Your task to perform on an android device: turn off location history Image 0: 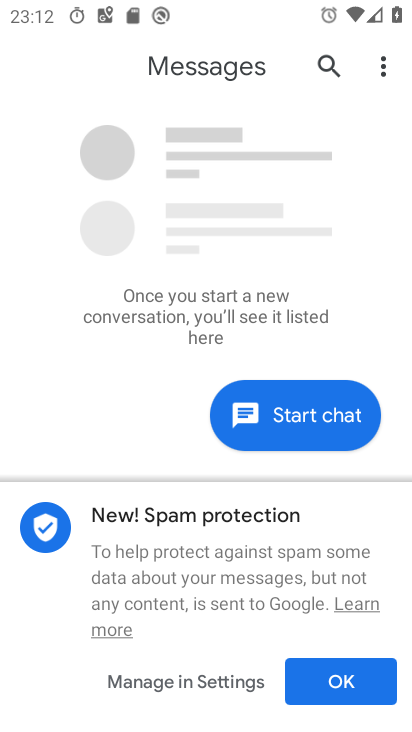
Step 0: press home button
Your task to perform on an android device: turn off location history Image 1: 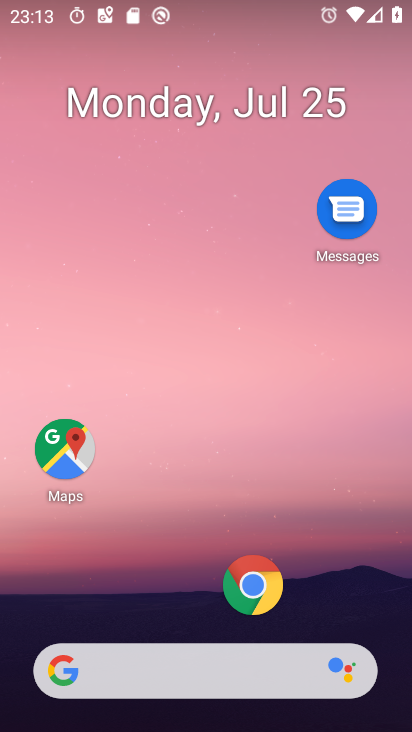
Step 1: click (66, 448)
Your task to perform on an android device: turn off location history Image 2: 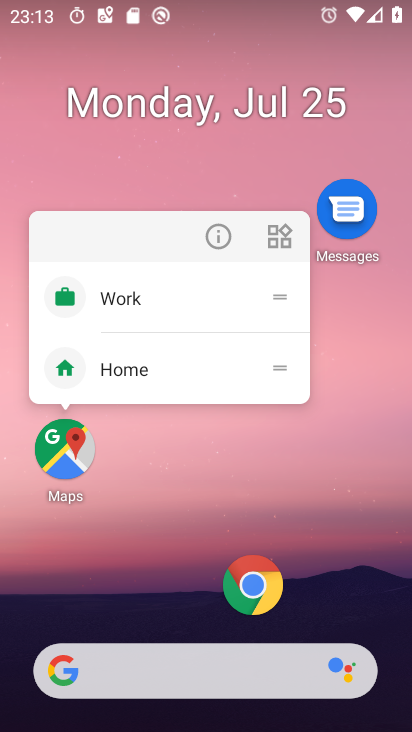
Step 2: click (62, 453)
Your task to perform on an android device: turn off location history Image 3: 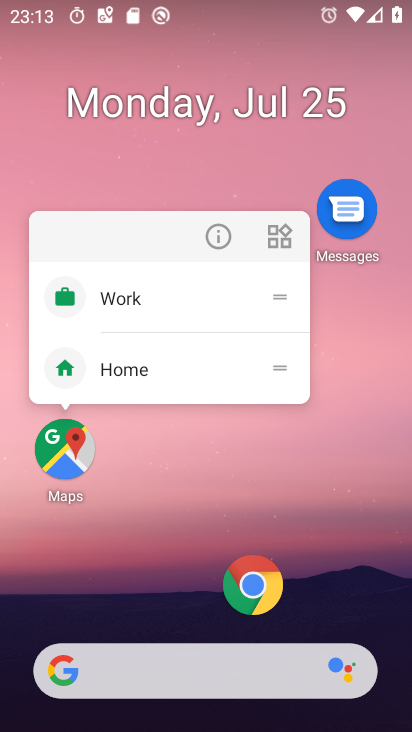
Step 3: click (72, 449)
Your task to perform on an android device: turn off location history Image 4: 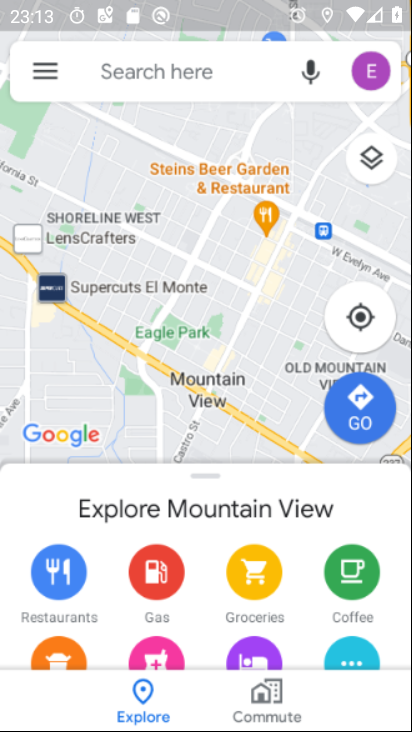
Step 4: click (72, 449)
Your task to perform on an android device: turn off location history Image 5: 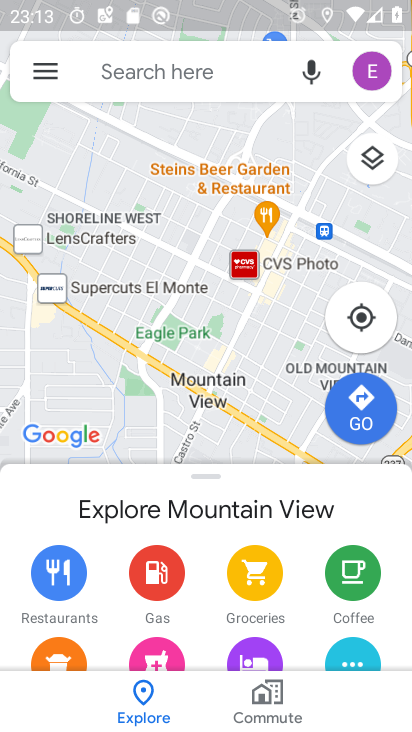
Step 5: click (47, 70)
Your task to perform on an android device: turn off location history Image 6: 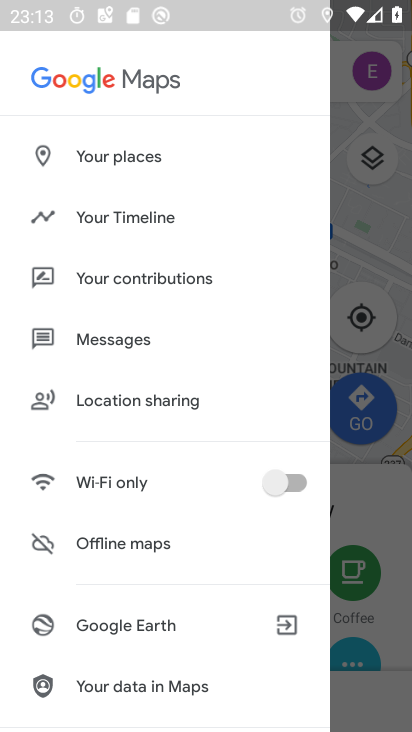
Step 6: click (141, 218)
Your task to perform on an android device: turn off location history Image 7: 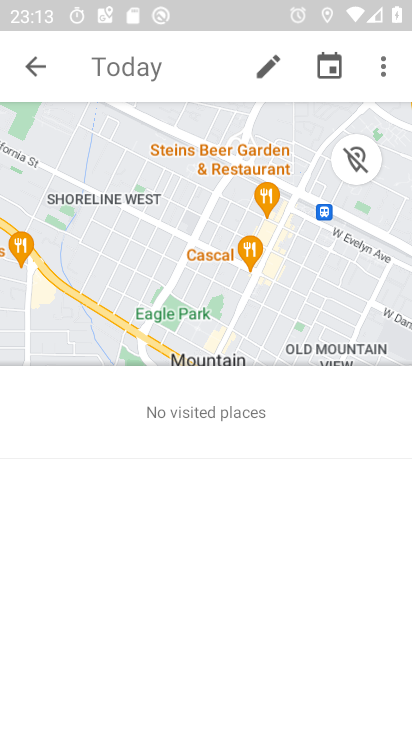
Step 7: click (384, 64)
Your task to perform on an android device: turn off location history Image 8: 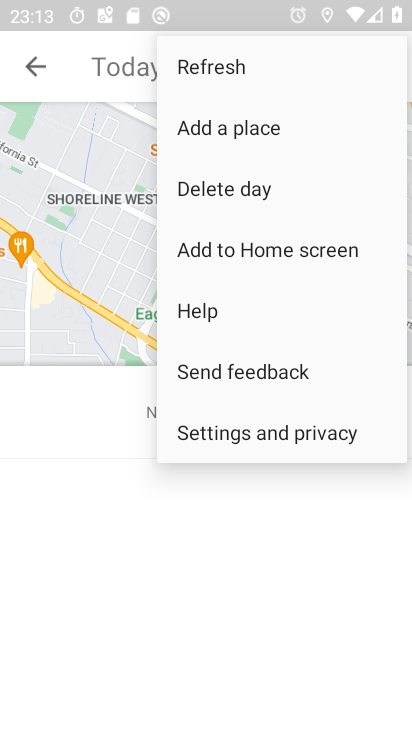
Step 8: click (248, 428)
Your task to perform on an android device: turn off location history Image 9: 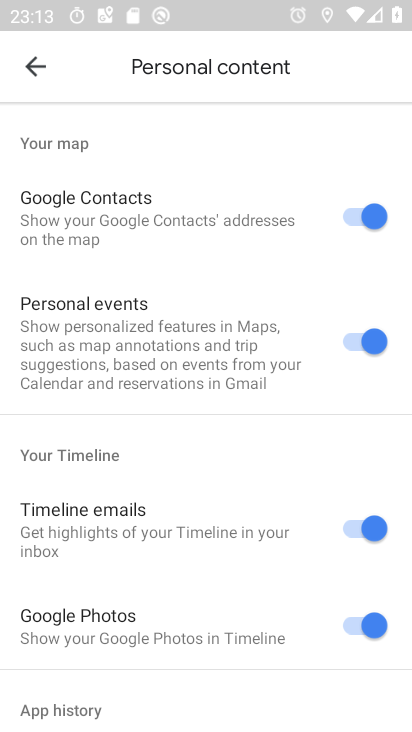
Step 9: drag from (145, 613) to (259, 138)
Your task to perform on an android device: turn off location history Image 10: 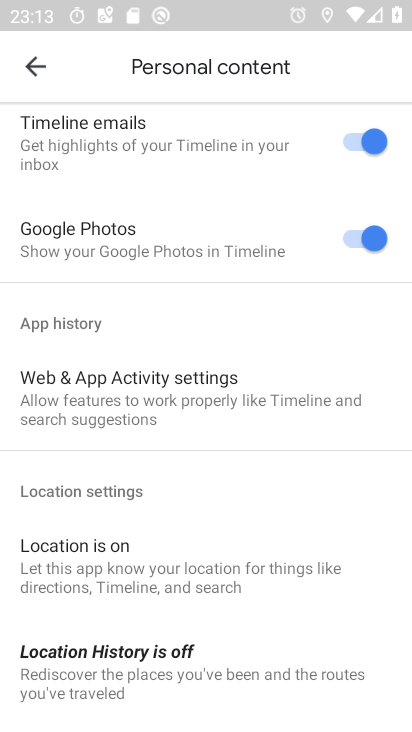
Step 10: drag from (213, 623) to (279, 233)
Your task to perform on an android device: turn off location history Image 11: 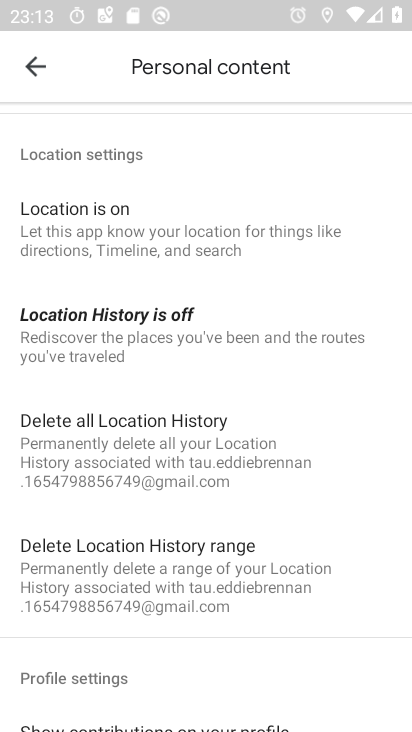
Step 11: click (127, 318)
Your task to perform on an android device: turn off location history Image 12: 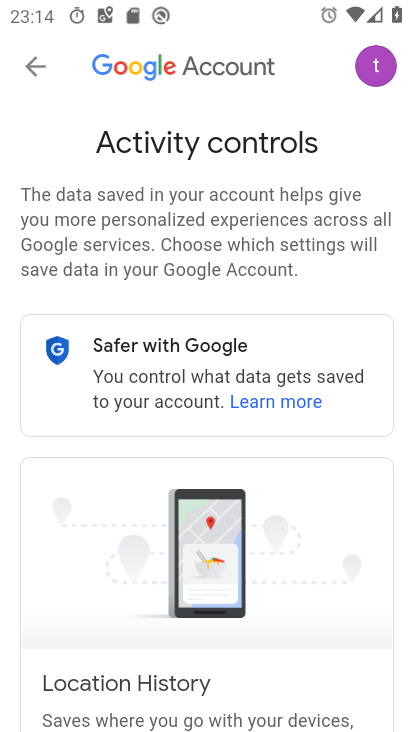
Step 12: drag from (300, 581) to (286, 194)
Your task to perform on an android device: turn off location history Image 13: 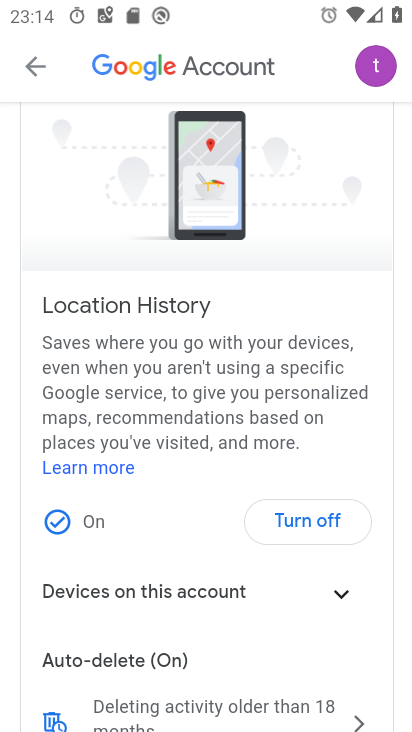
Step 13: click (315, 521)
Your task to perform on an android device: turn off location history Image 14: 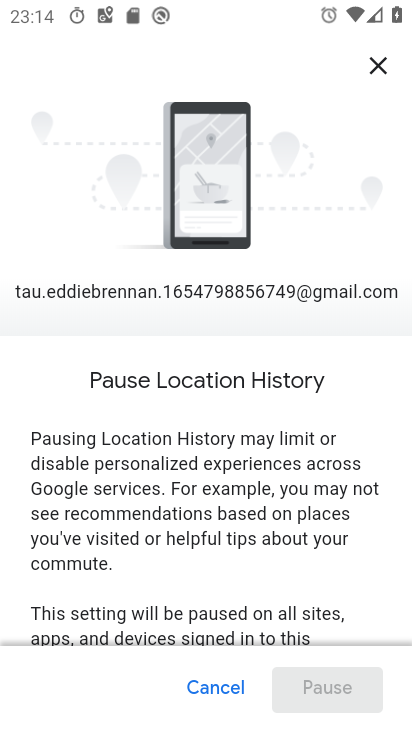
Step 14: drag from (243, 572) to (343, 54)
Your task to perform on an android device: turn off location history Image 15: 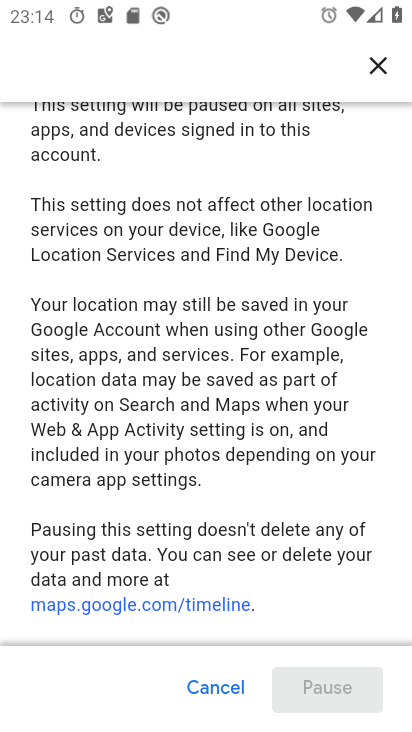
Step 15: drag from (259, 562) to (338, 126)
Your task to perform on an android device: turn off location history Image 16: 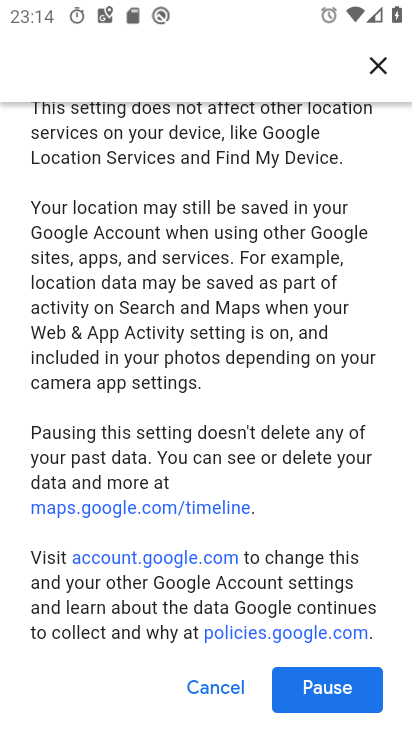
Step 16: click (316, 689)
Your task to perform on an android device: turn off location history Image 17: 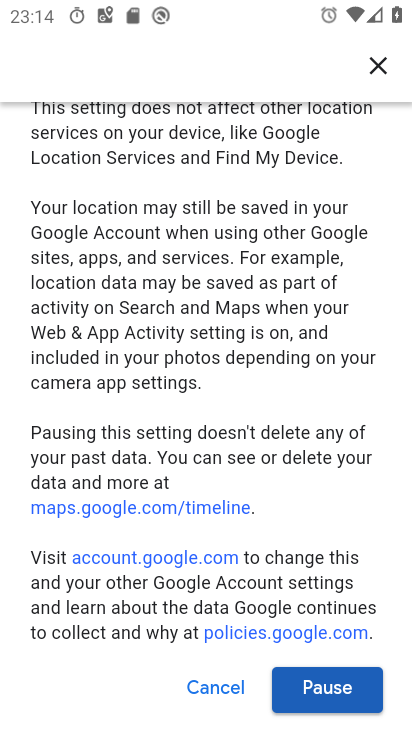
Step 17: click (331, 689)
Your task to perform on an android device: turn off location history Image 18: 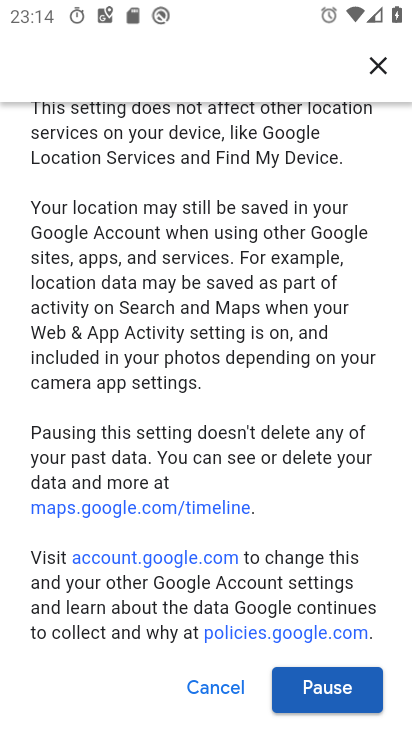
Step 18: click (331, 689)
Your task to perform on an android device: turn off location history Image 19: 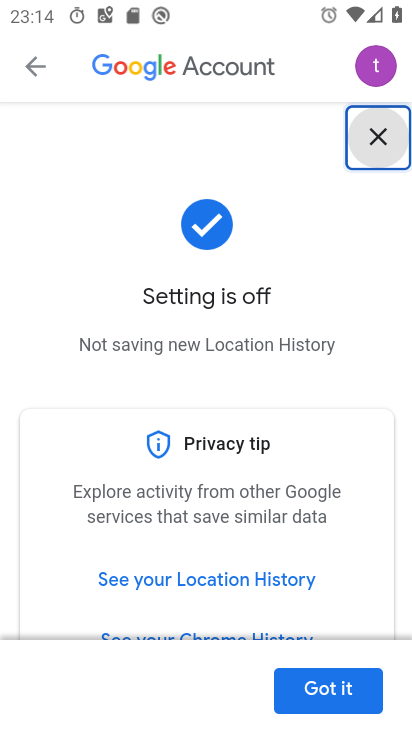
Step 19: click (321, 686)
Your task to perform on an android device: turn off location history Image 20: 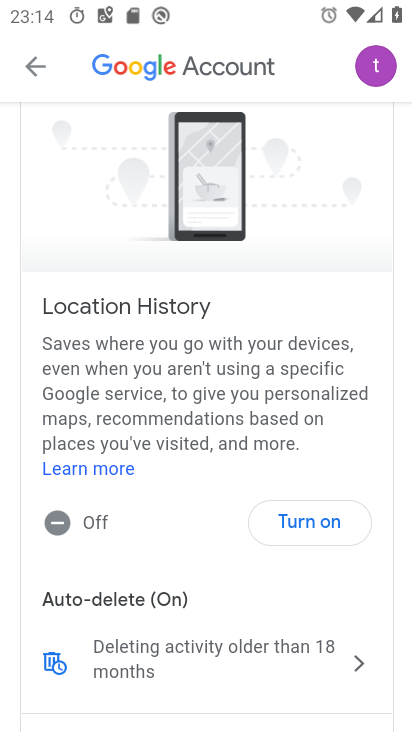
Step 20: task complete